Your task to perform on an android device: check storage Image 0: 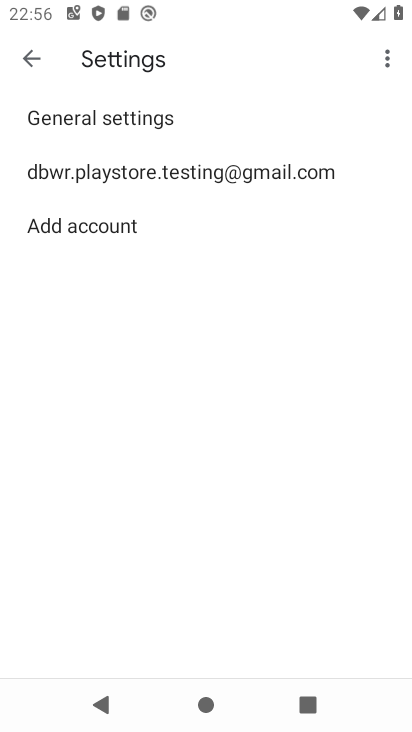
Step 0: press home button
Your task to perform on an android device: check storage Image 1: 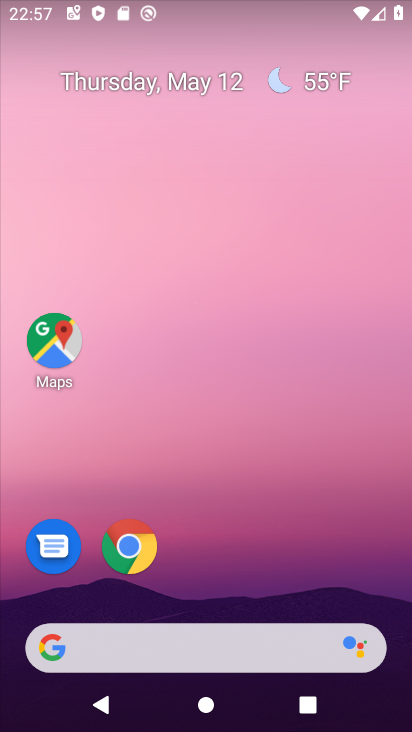
Step 1: drag from (217, 461) to (281, 219)
Your task to perform on an android device: check storage Image 2: 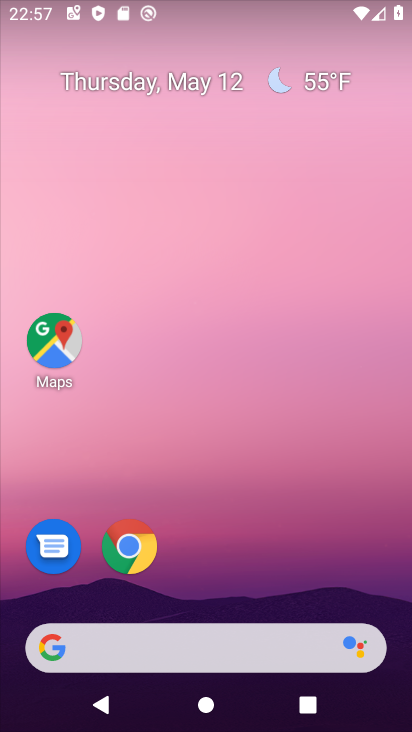
Step 2: drag from (207, 500) to (287, 138)
Your task to perform on an android device: check storage Image 3: 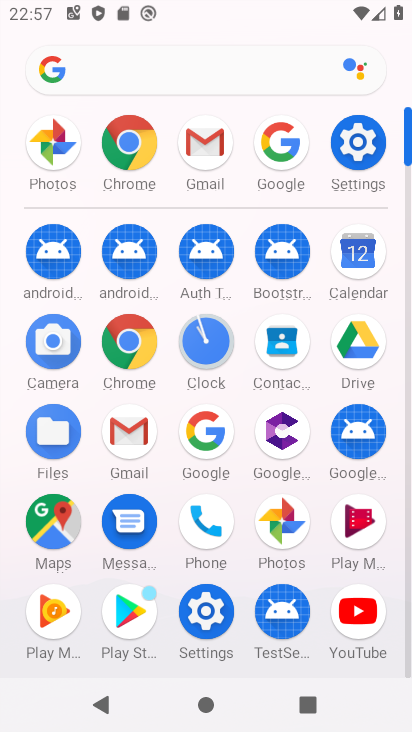
Step 3: click (357, 141)
Your task to perform on an android device: check storage Image 4: 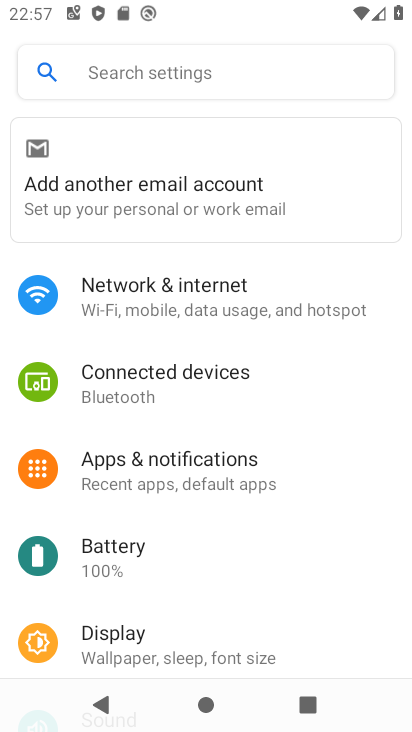
Step 4: drag from (185, 563) to (241, 166)
Your task to perform on an android device: check storage Image 5: 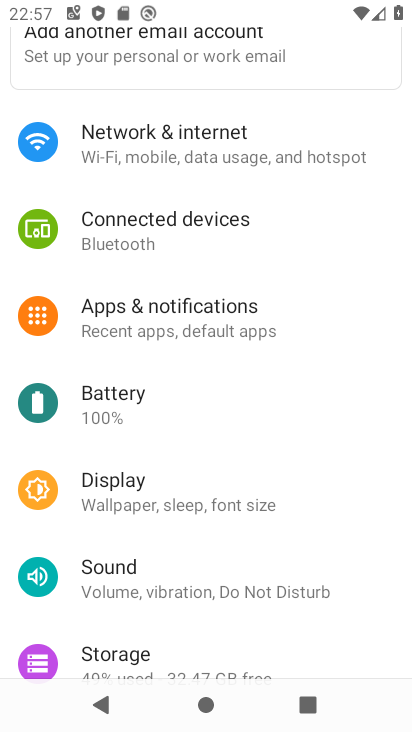
Step 5: click (154, 657)
Your task to perform on an android device: check storage Image 6: 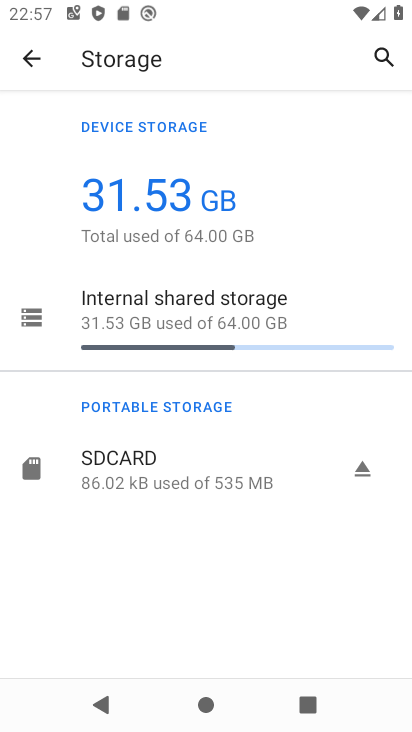
Step 6: task complete